Your task to perform on an android device: toggle improve location accuracy Image 0: 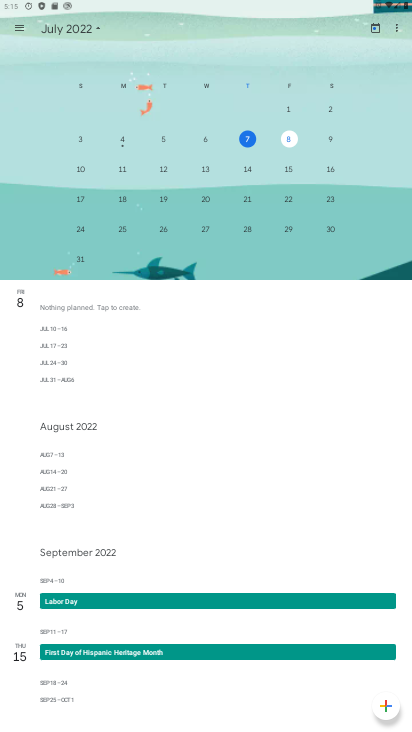
Step 0: press home button
Your task to perform on an android device: toggle improve location accuracy Image 1: 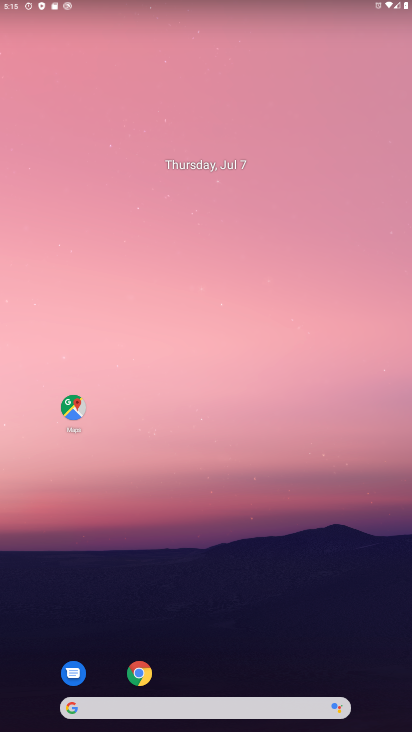
Step 1: click (158, 61)
Your task to perform on an android device: toggle improve location accuracy Image 2: 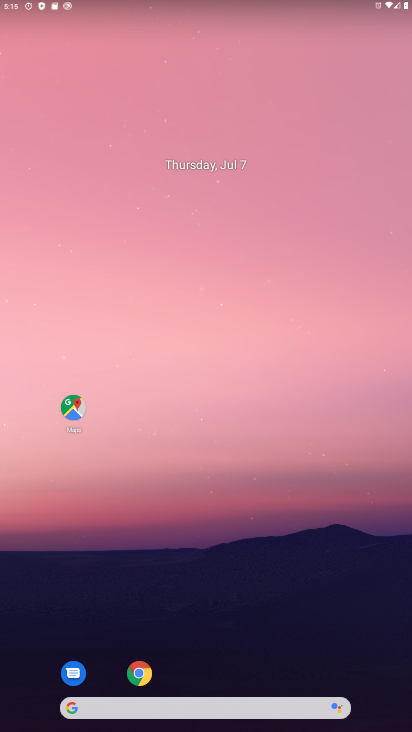
Step 2: drag from (177, 686) to (217, 145)
Your task to perform on an android device: toggle improve location accuracy Image 3: 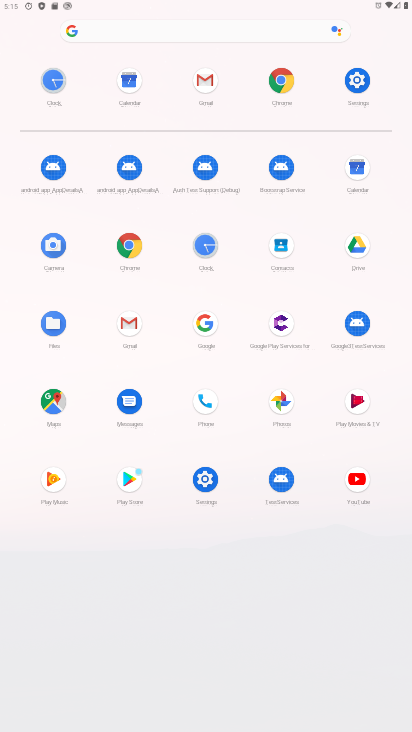
Step 3: click (347, 72)
Your task to perform on an android device: toggle improve location accuracy Image 4: 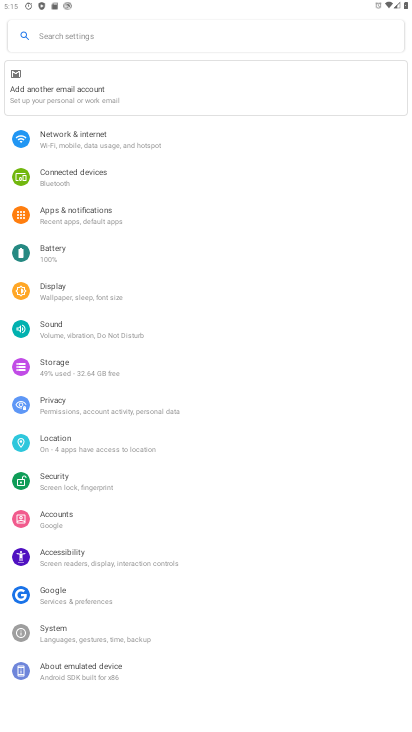
Step 4: click (81, 450)
Your task to perform on an android device: toggle improve location accuracy Image 5: 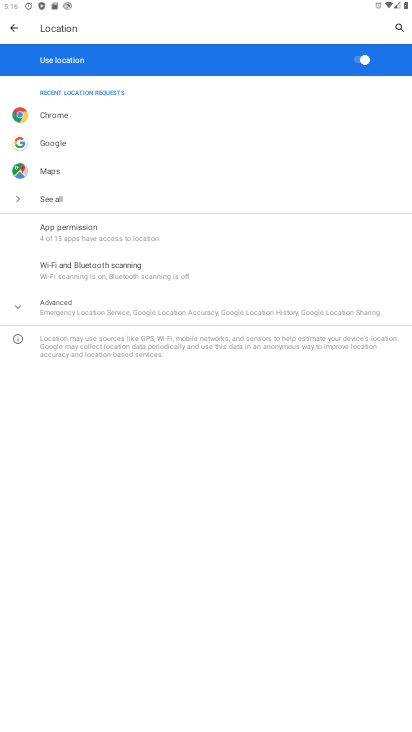
Step 5: click (101, 306)
Your task to perform on an android device: toggle improve location accuracy Image 6: 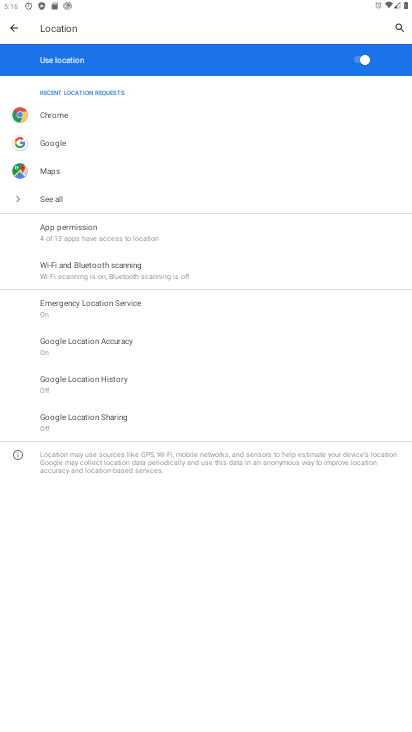
Step 6: click (111, 344)
Your task to perform on an android device: toggle improve location accuracy Image 7: 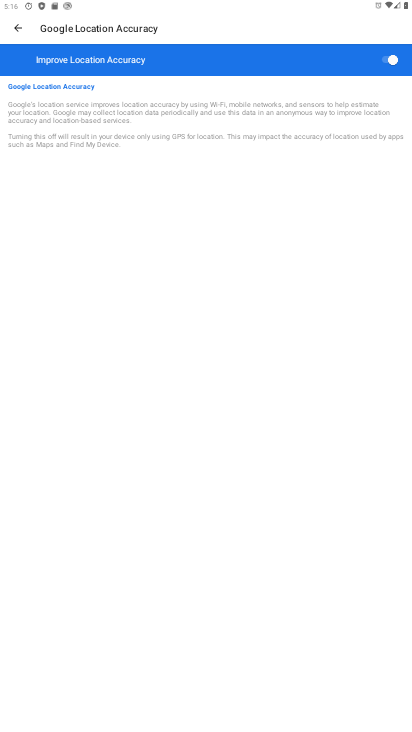
Step 7: click (382, 61)
Your task to perform on an android device: toggle improve location accuracy Image 8: 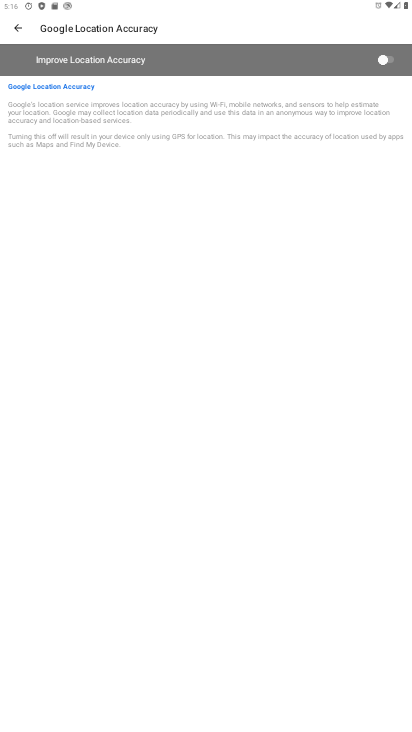
Step 8: task complete